Your task to perform on an android device: turn off picture-in-picture Image 0: 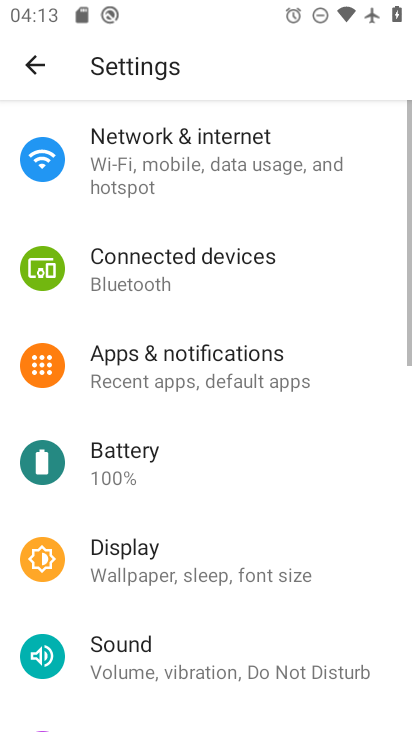
Step 0: click (224, 351)
Your task to perform on an android device: turn off picture-in-picture Image 1: 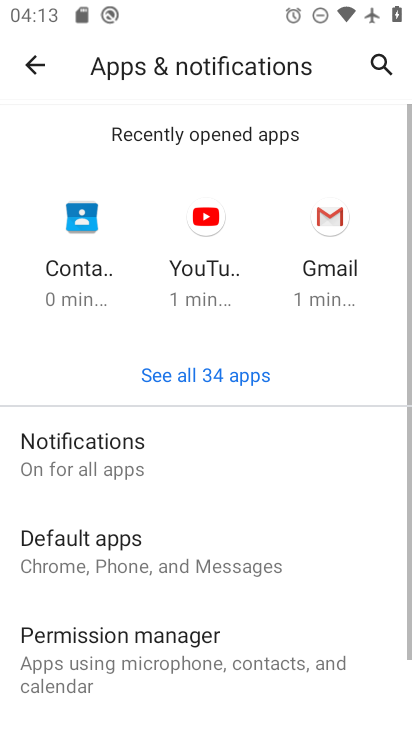
Step 1: drag from (149, 638) to (152, 207)
Your task to perform on an android device: turn off picture-in-picture Image 2: 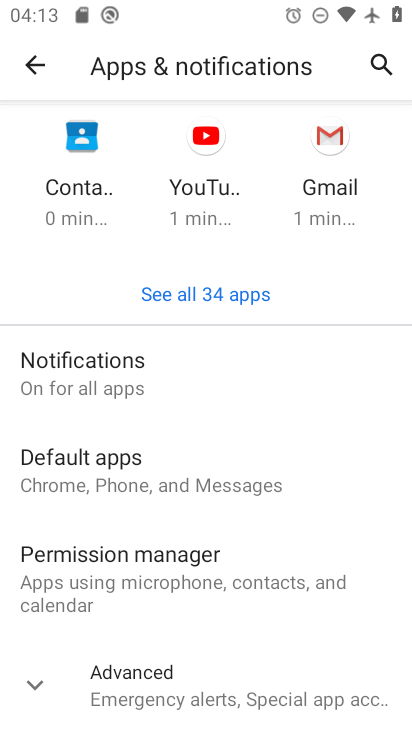
Step 2: click (239, 684)
Your task to perform on an android device: turn off picture-in-picture Image 3: 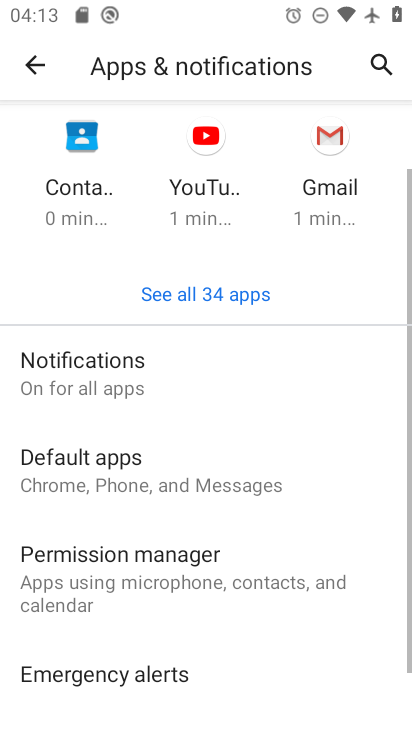
Step 3: drag from (249, 670) to (292, 211)
Your task to perform on an android device: turn off picture-in-picture Image 4: 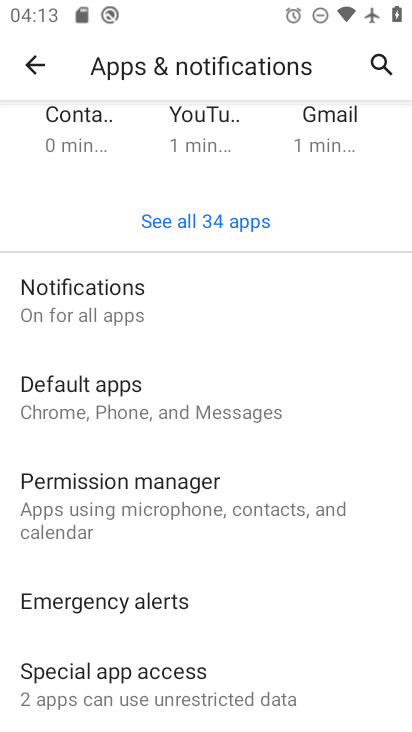
Step 4: click (202, 713)
Your task to perform on an android device: turn off picture-in-picture Image 5: 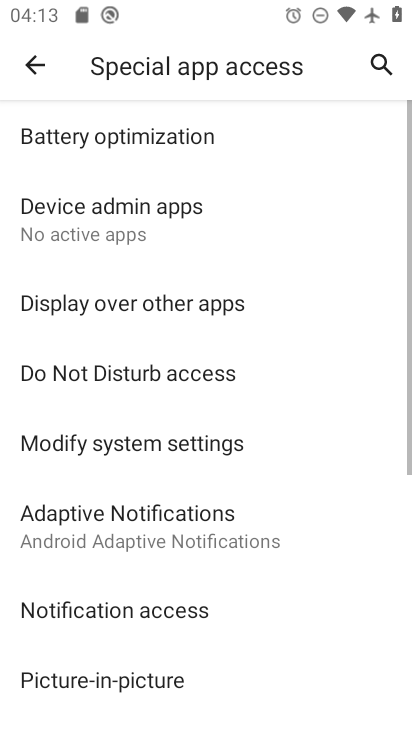
Step 5: click (202, 713)
Your task to perform on an android device: turn off picture-in-picture Image 6: 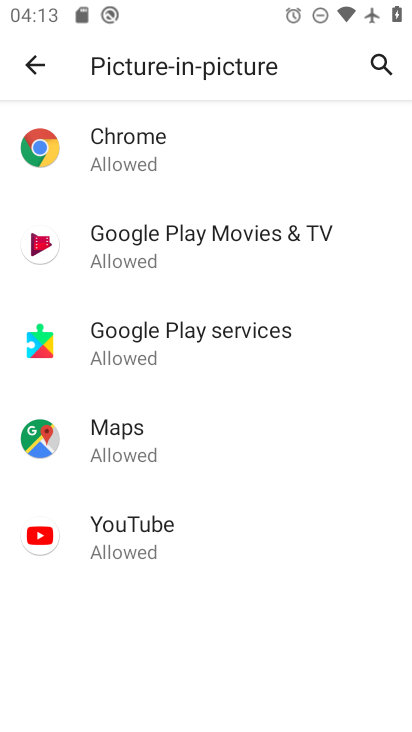
Step 6: click (301, 126)
Your task to perform on an android device: turn off picture-in-picture Image 7: 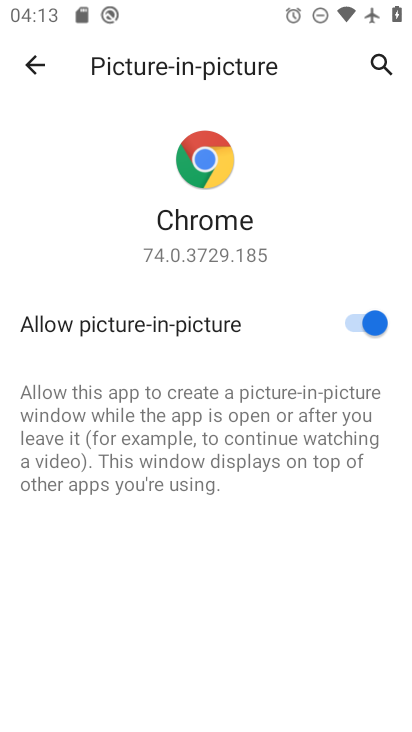
Step 7: click (368, 330)
Your task to perform on an android device: turn off picture-in-picture Image 8: 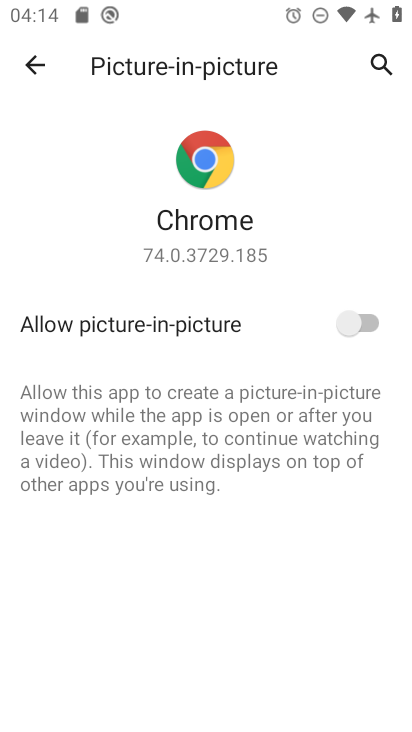
Step 8: task complete